Your task to perform on an android device: Go to accessibility settings Image 0: 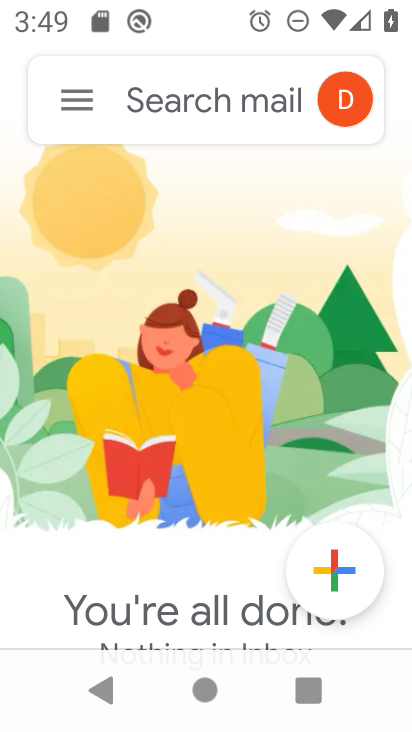
Step 0: press home button
Your task to perform on an android device: Go to accessibility settings Image 1: 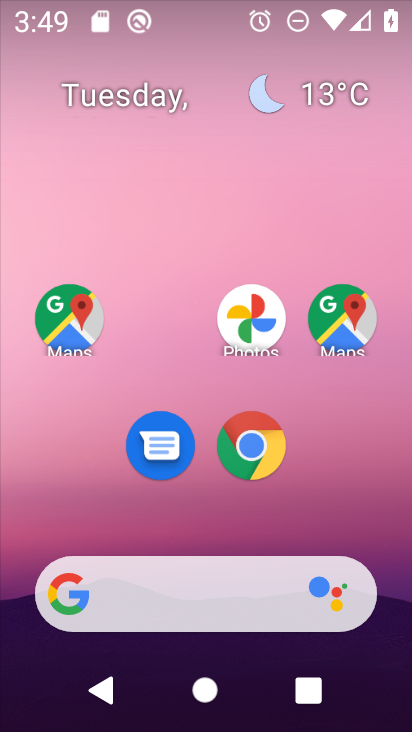
Step 1: drag from (367, 545) to (341, 184)
Your task to perform on an android device: Go to accessibility settings Image 2: 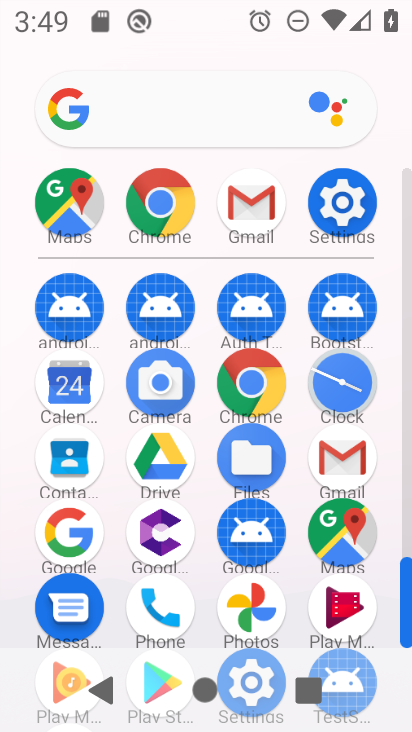
Step 2: click (352, 204)
Your task to perform on an android device: Go to accessibility settings Image 3: 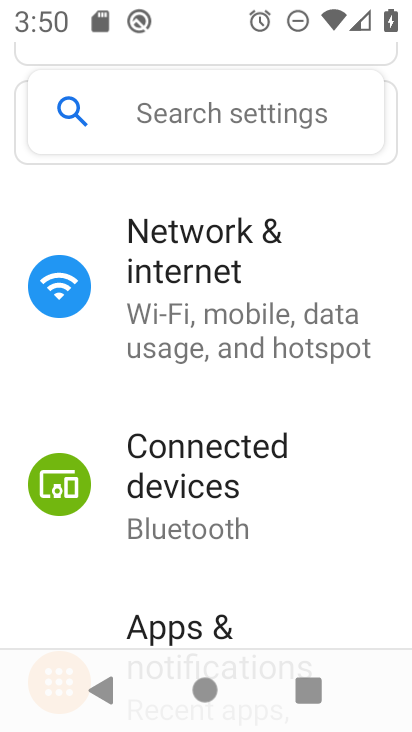
Step 3: drag from (338, 548) to (353, 441)
Your task to perform on an android device: Go to accessibility settings Image 4: 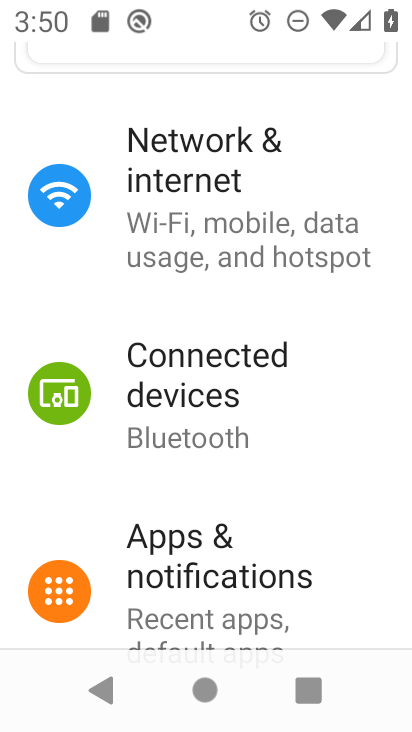
Step 4: drag from (374, 570) to (354, 418)
Your task to perform on an android device: Go to accessibility settings Image 5: 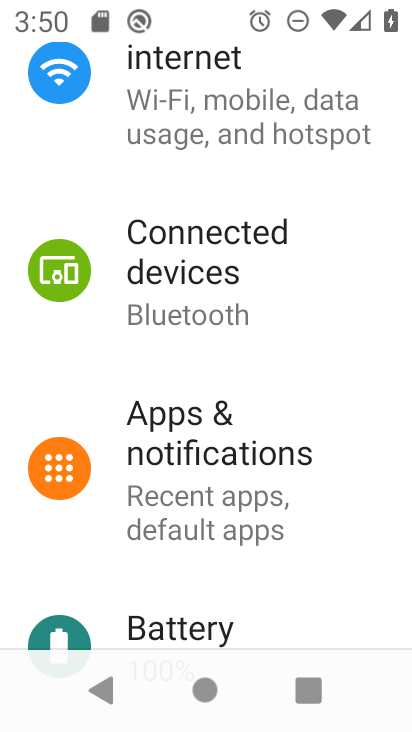
Step 5: drag from (346, 610) to (332, 504)
Your task to perform on an android device: Go to accessibility settings Image 6: 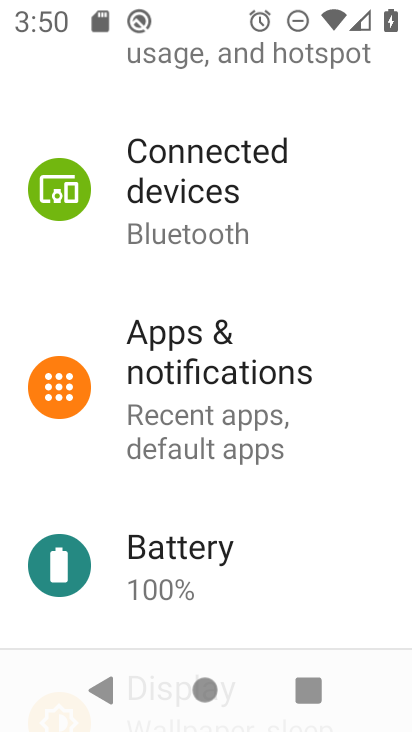
Step 6: drag from (372, 580) to (363, 520)
Your task to perform on an android device: Go to accessibility settings Image 7: 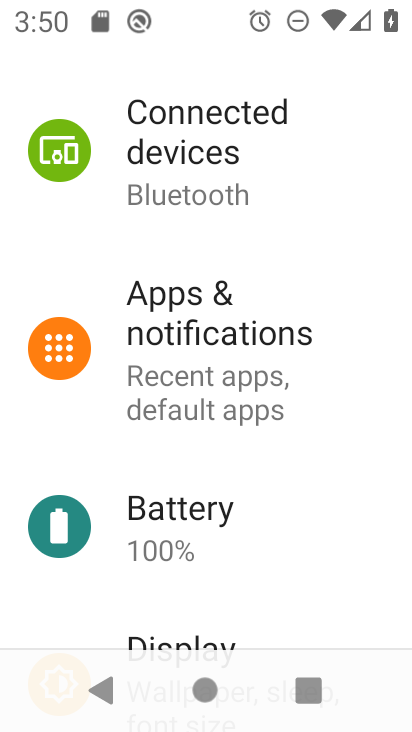
Step 7: drag from (365, 571) to (366, 509)
Your task to perform on an android device: Go to accessibility settings Image 8: 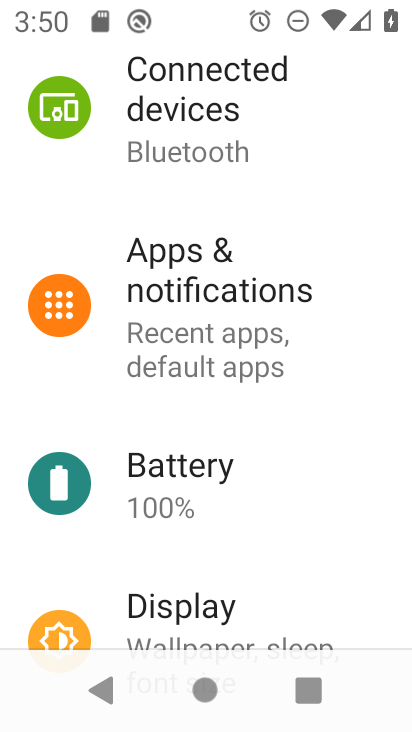
Step 8: drag from (369, 578) to (391, 464)
Your task to perform on an android device: Go to accessibility settings Image 9: 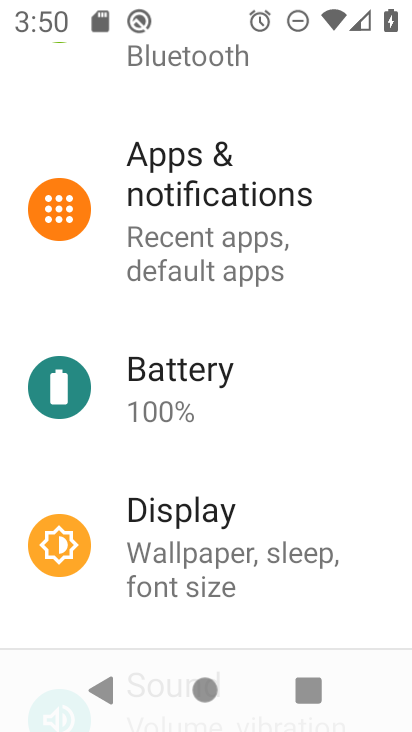
Step 9: drag from (367, 598) to (365, 524)
Your task to perform on an android device: Go to accessibility settings Image 10: 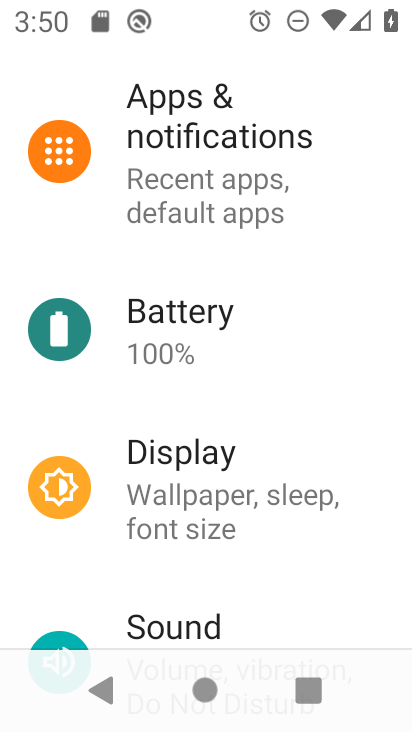
Step 10: drag from (361, 591) to (341, 486)
Your task to perform on an android device: Go to accessibility settings Image 11: 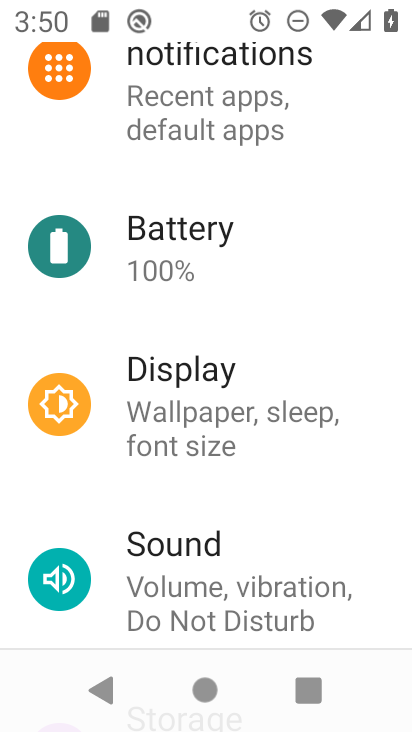
Step 11: drag from (366, 614) to (352, 515)
Your task to perform on an android device: Go to accessibility settings Image 12: 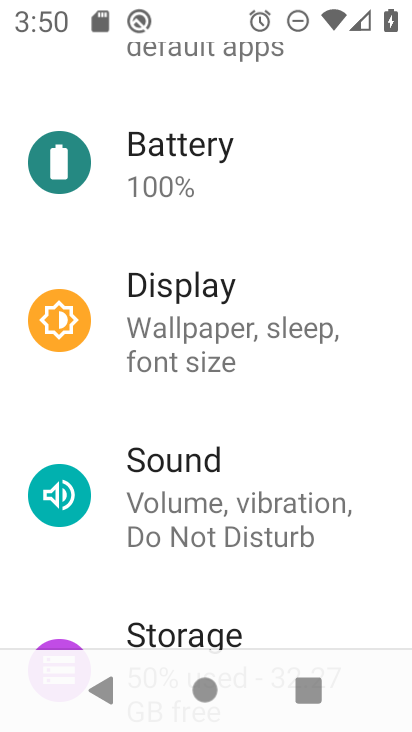
Step 12: drag from (342, 594) to (345, 498)
Your task to perform on an android device: Go to accessibility settings Image 13: 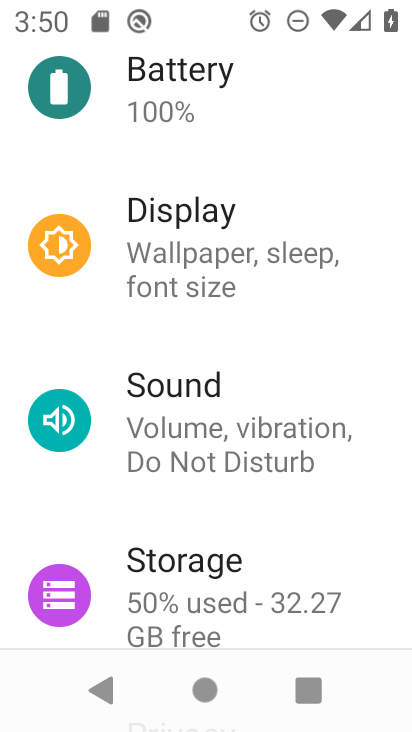
Step 13: drag from (372, 618) to (383, 480)
Your task to perform on an android device: Go to accessibility settings Image 14: 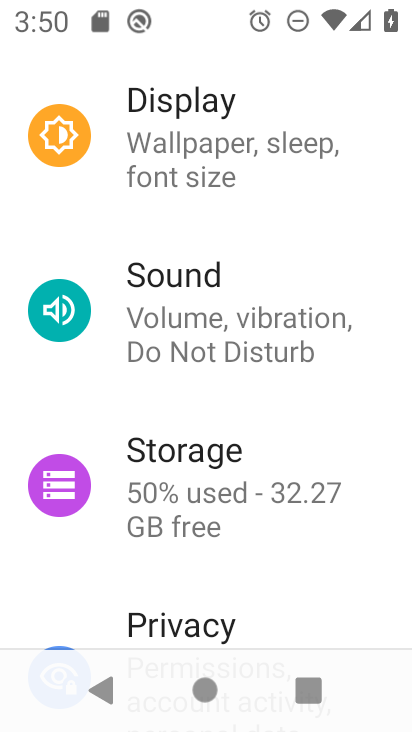
Step 14: drag from (355, 592) to (354, 511)
Your task to perform on an android device: Go to accessibility settings Image 15: 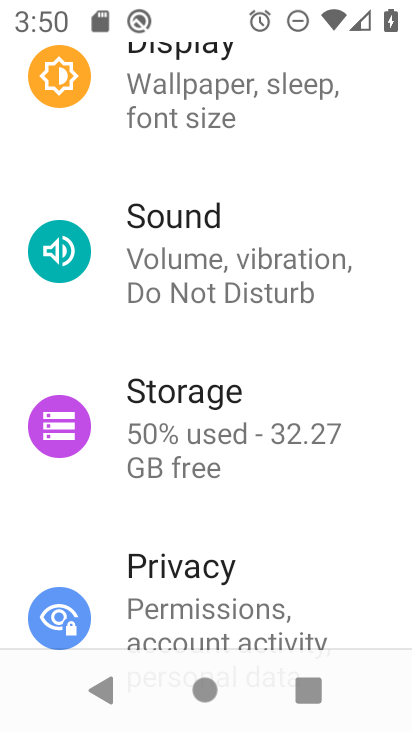
Step 15: drag from (343, 610) to (361, 516)
Your task to perform on an android device: Go to accessibility settings Image 16: 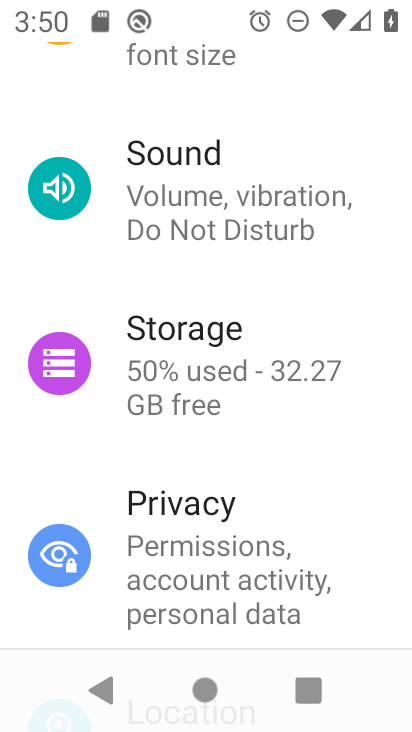
Step 16: drag from (353, 613) to (349, 529)
Your task to perform on an android device: Go to accessibility settings Image 17: 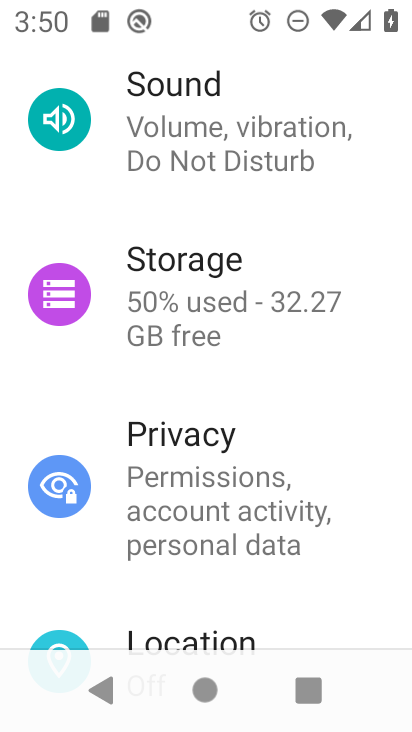
Step 17: drag from (328, 592) to (345, 517)
Your task to perform on an android device: Go to accessibility settings Image 18: 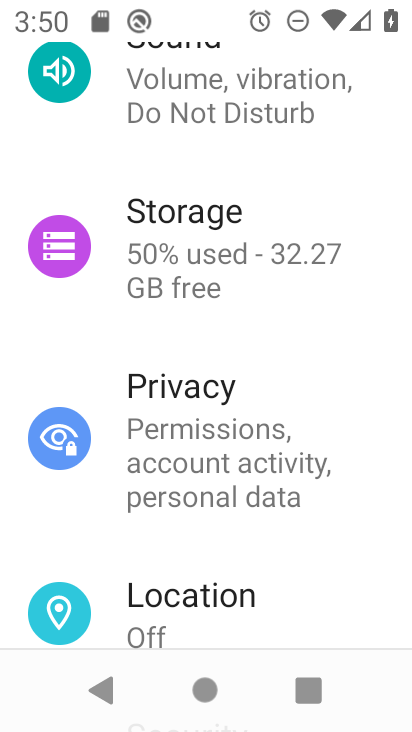
Step 18: drag from (363, 607) to (358, 519)
Your task to perform on an android device: Go to accessibility settings Image 19: 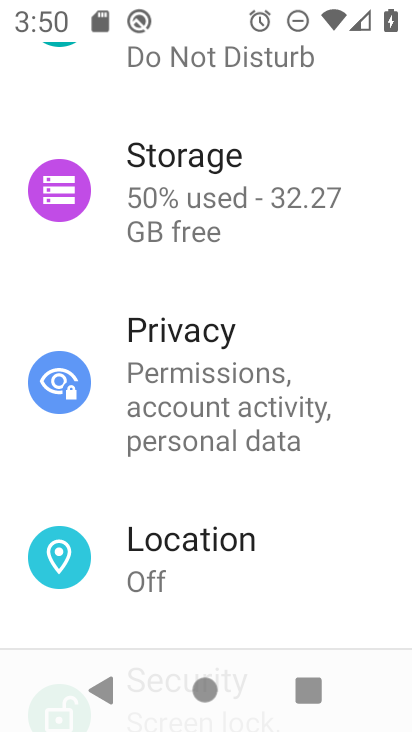
Step 19: drag from (347, 608) to (335, 488)
Your task to perform on an android device: Go to accessibility settings Image 20: 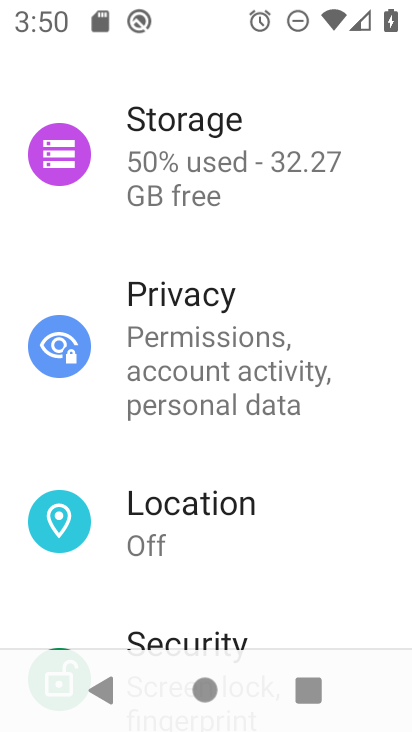
Step 20: drag from (335, 620) to (330, 509)
Your task to perform on an android device: Go to accessibility settings Image 21: 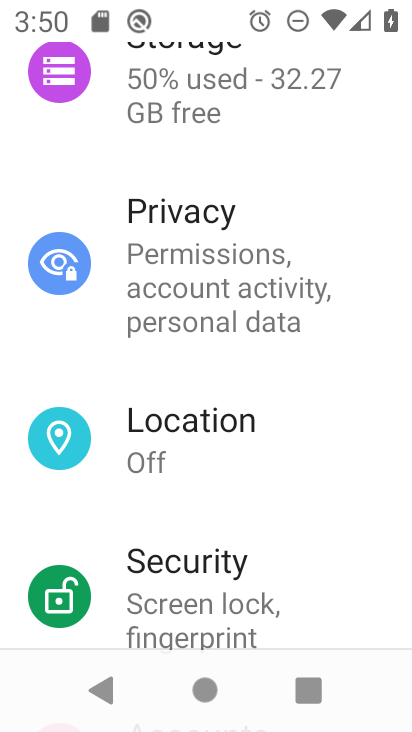
Step 21: drag from (343, 551) to (339, 419)
Your task to perform on an android device: Go to accessibility settings Image 22: 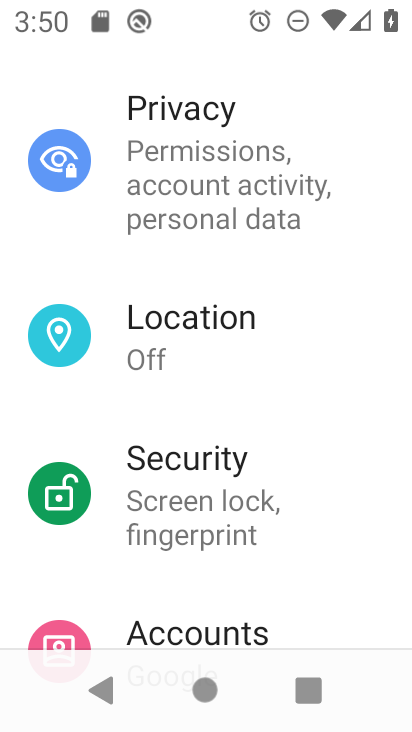
Step 22: drag from (363, 573) to (345, 455)
Your task to perform on an android device: Go to accessibility settings Image 23: 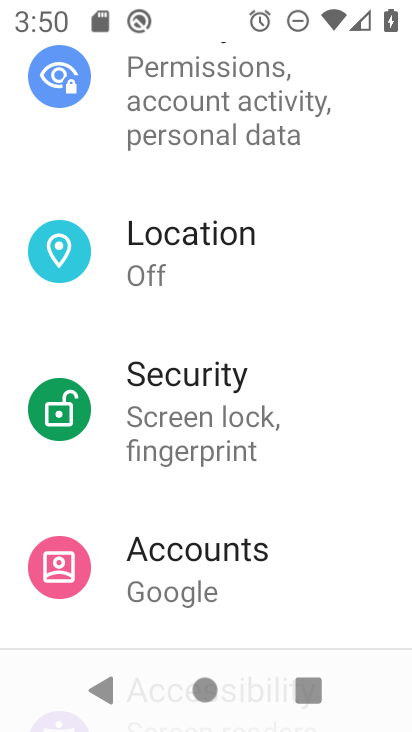
Step 23: drag from (340, 586) to (327, 450)
Your task to perform on an android device: Go to accessibility settings Image 24: 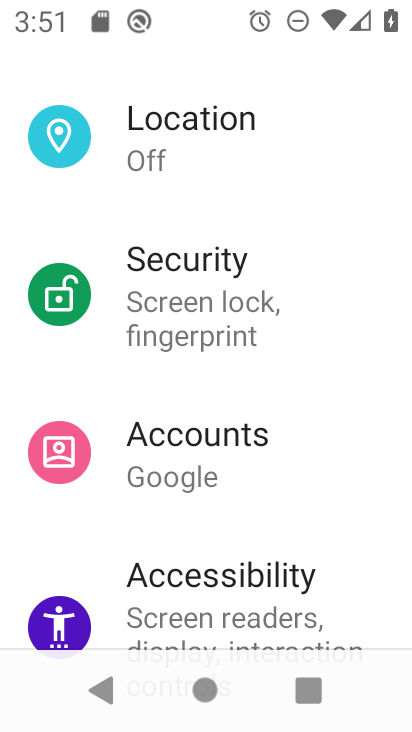
Step 24: drag from (350, 605) to (370, 488)
Your task to perform on an android device: Go to accessibility settings Image 25: 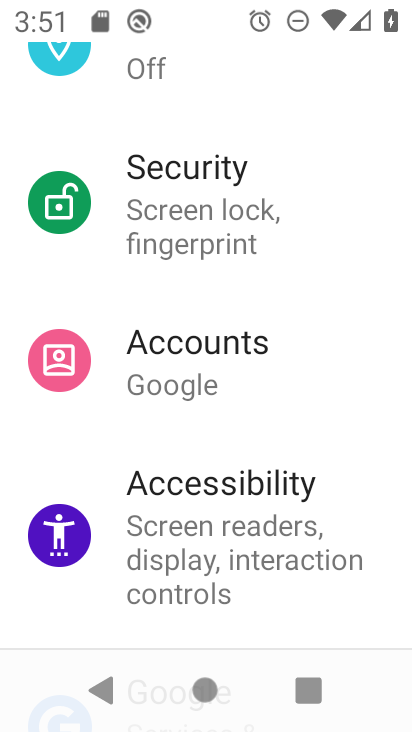
Step 25: click (311, 544)
Your task to perform on an android device: Go to accessibility settings Image 26: 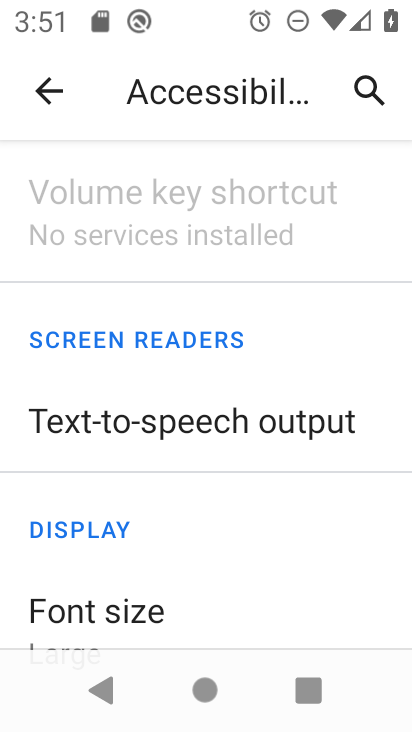
Step 26: task complete